Your task to perform on an android device: Open Google Chrome and click the shortcut for Amazon.com Image 0: 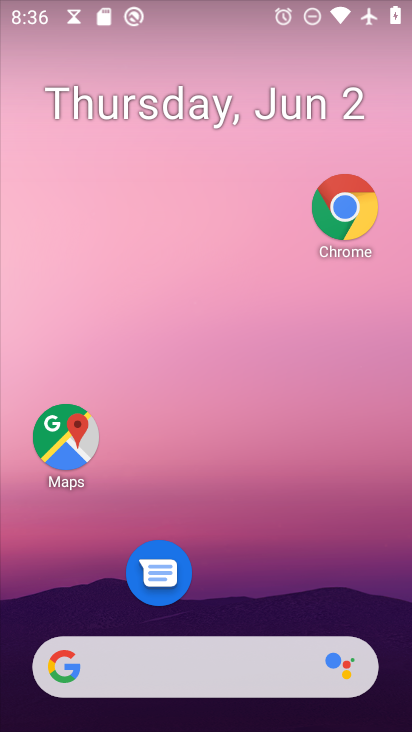
Step 0: press home button
Your task to perform on an android device: Open Google Chrome and click the shortcut for Amazon.com Image 1: 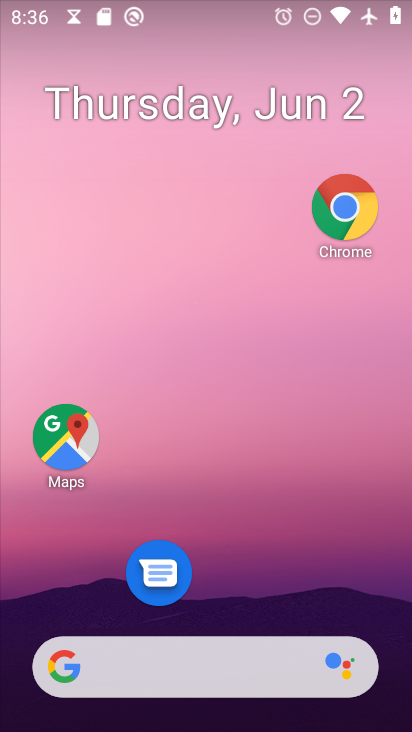
Step 1: click (347, 224)
Your task to perform on an android device: Open Google Chrome and click the shortcut for Amazon.com Image 2: 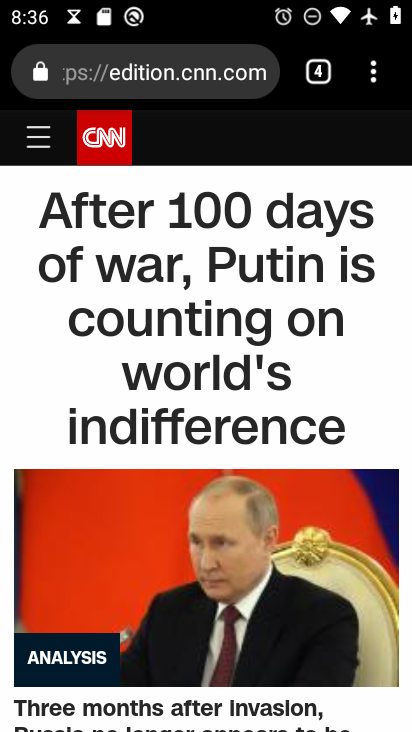
Step 2: drag from (372, 78) to (206, 143)
Your task to perform on an android device: Open Google Chrome and click the shortcut for Amazon.com Image 3: 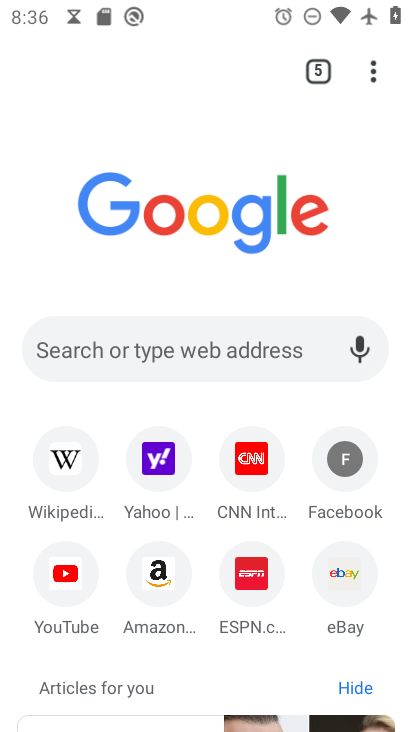
Step 3: click (161, 580)
Your task to perform on an android device: Open Google Chrome and click the shortcut for Amazon.com Image 4: 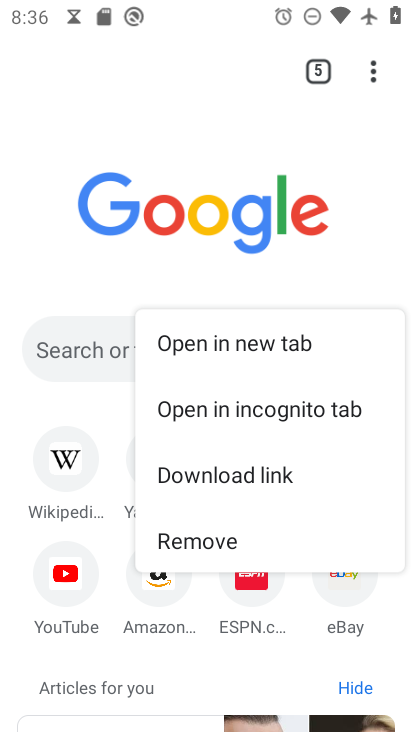
Step 4: click (154, 588)
Your task to perform on an android device: Open Google Chrome and click the shortcut for Amazon.com Image 5: 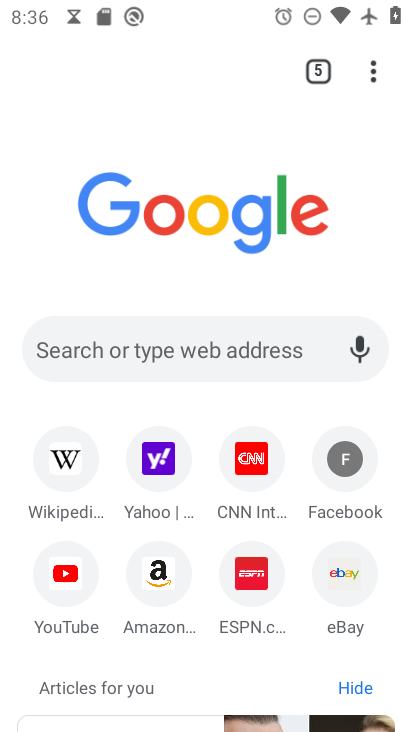
Step 5: click (154, 583)
Your task to perform on an android device: Open Google Chrome and click the shortcut for Amazon.com Image 6: 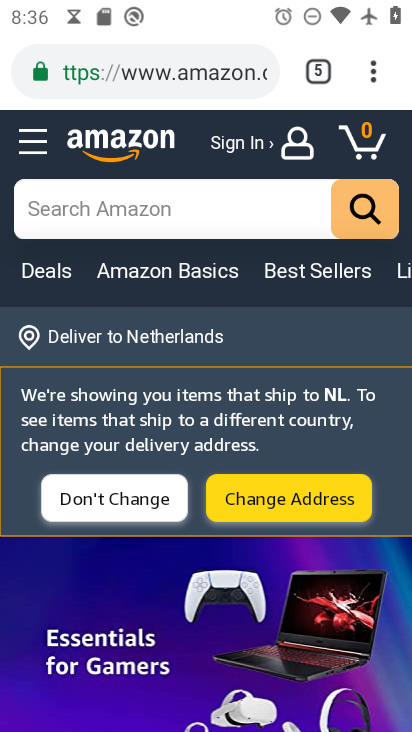
Step 6: task complete